Your task to perform on an android device: make emails show in primary in the gmail app Image 0: 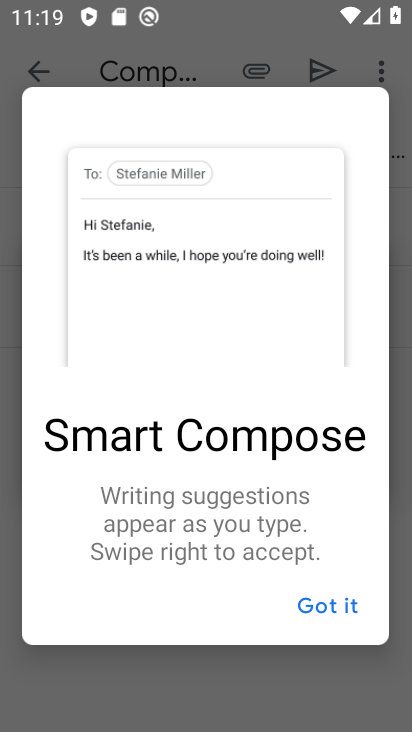
Step 0: task complete